Your task to perform on an android device: turn off javascript in the chrome app Image 0: 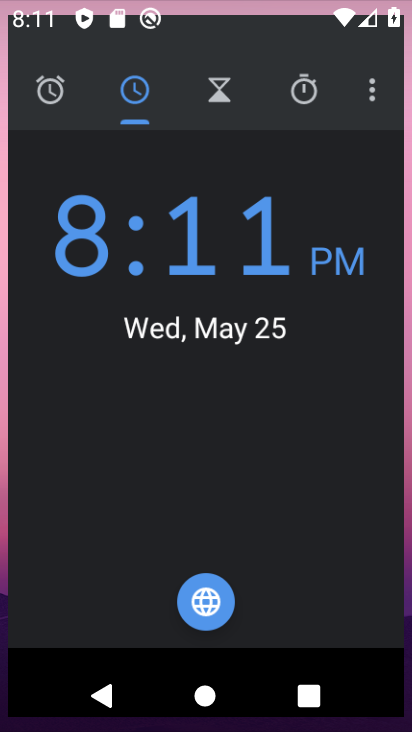
Step 0: press back button
Your task to perform on an android device: turn off javascript in the chrome app Image 1: 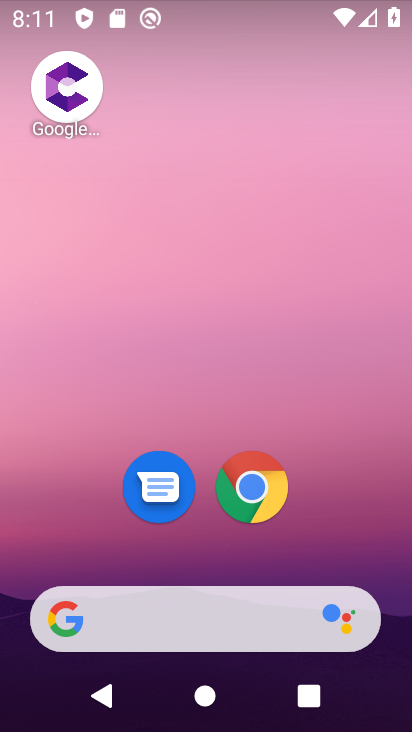
Step 1: drag from (374, 657) to (223, 85)
Your task to perform on an android device: turn off javascript in the chrome app Image 2: 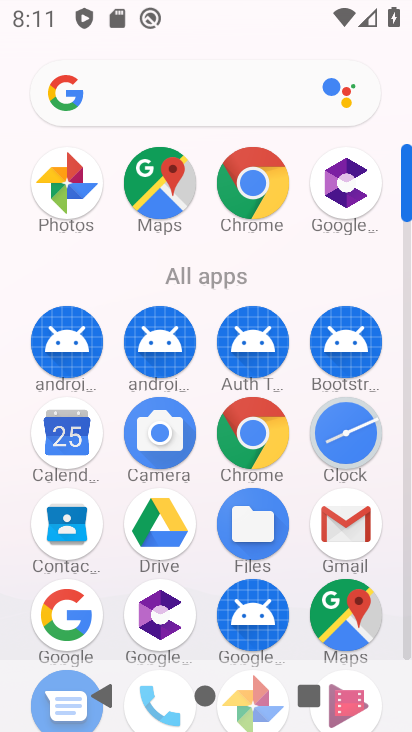
Step 2: click (250, 174)
Your task to perform on an android device: turn off javascript in the chrome app Image 3: 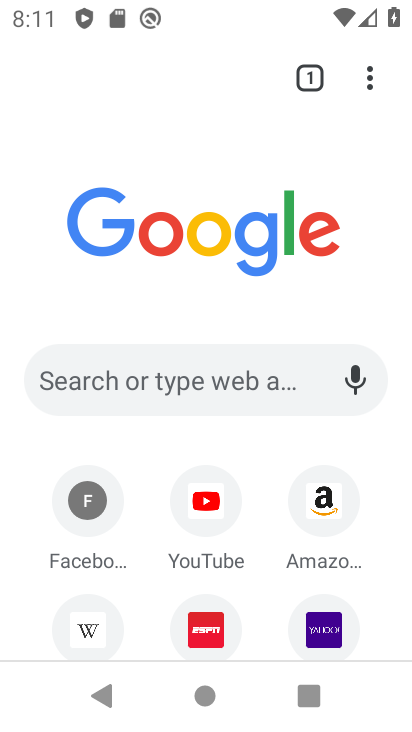
Step 3: drag from (366, 83) to (79, 552)
Your task to perform on an android device: turn off javascript in the chrome app Image 4: 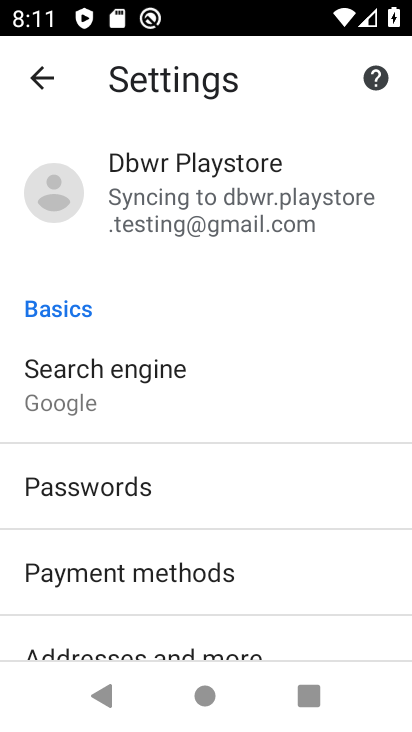
Step 4: drag from (174, 581) to (160, 173)
Your task to perform on an android device: turn off javascript in the chrome app Image 5: 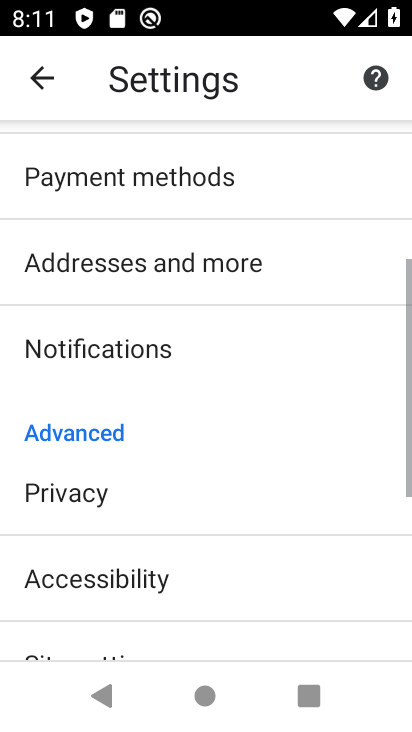
Step 5: drag from (158, 485) to (185, 205)
Your task to perform on an android device: turn off javascript in the chrome app Image 6: 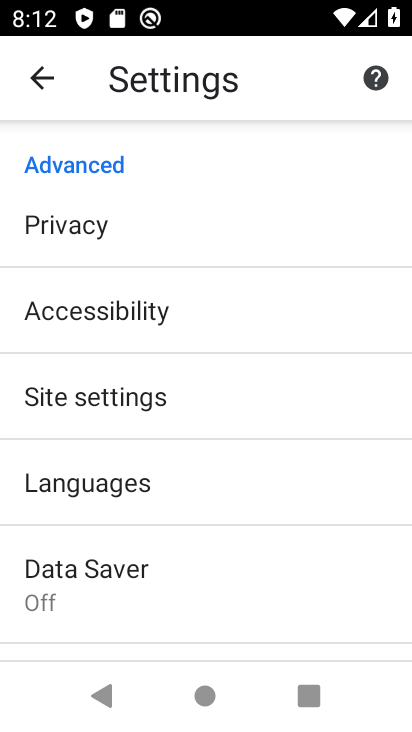
Step 6: click (95, 387)
Your task to perform on an android device: turn off javascript in the chrome app Image 7: 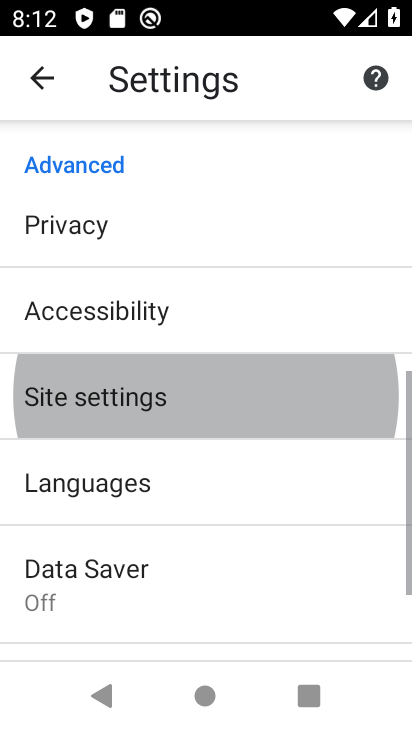
Step 7: click (101, 389)
Your task to perform on an android device: turn off javascript in the chrome app Image 8: 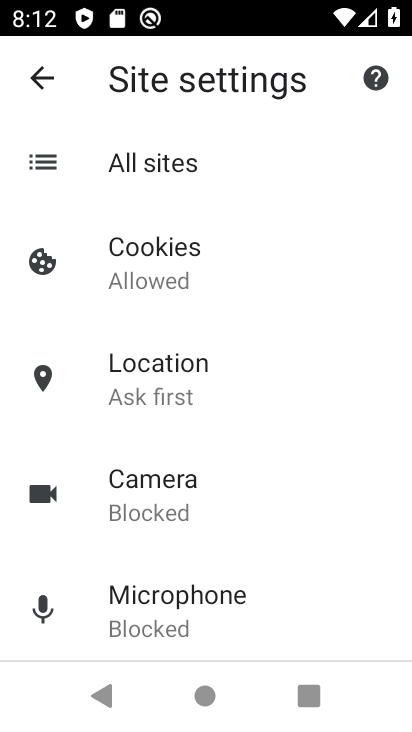
Step 8: drag from (217, 527) to (233, 192)
Your task to perform on an android device: turn off javascript in the chrome app Image 9: 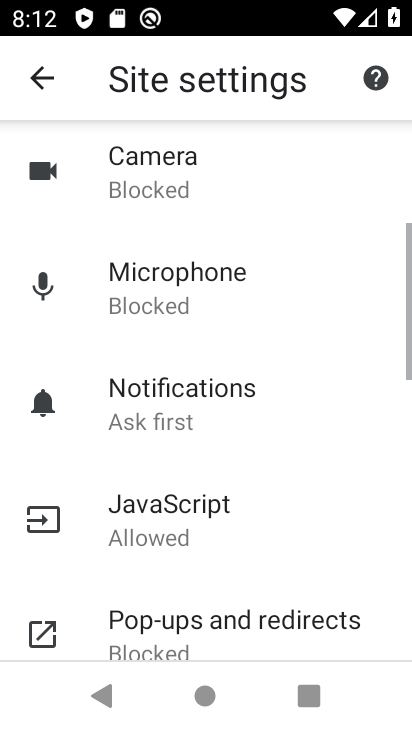
Step 9: drag from (198, 507) to (198, 103)
Your task to perform on an android device: turn off javascript in the chrome app Image 10: 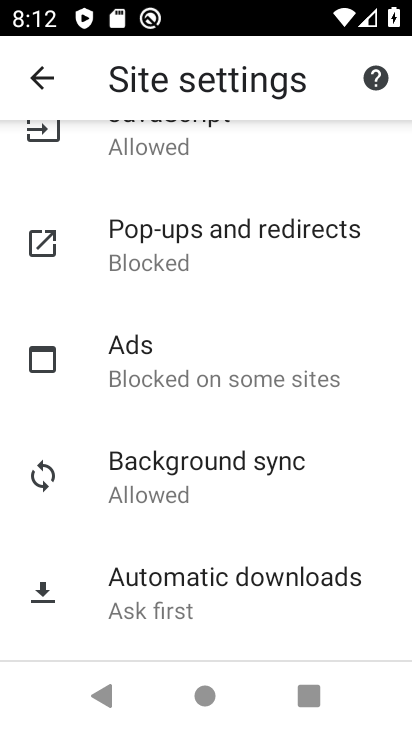
Step 10: drag from (189, 293) to (241, 519)
Your task to perform on an android device: turn off javascript in the chrome app Image 11: 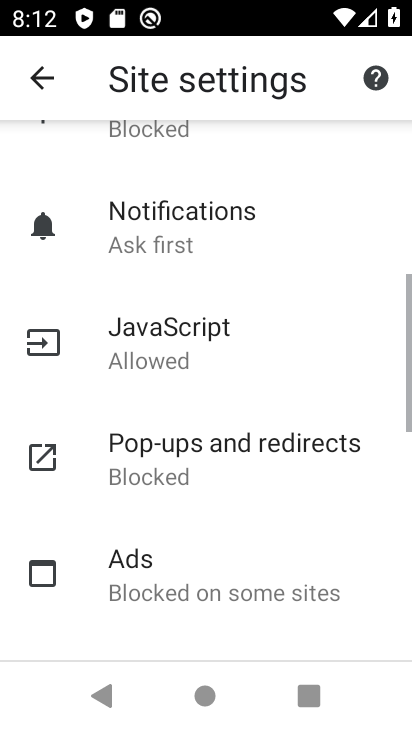
Step 11: click (148, 339)
Your task to perform on an android device: turn off javascript in the chrome app Image 12: 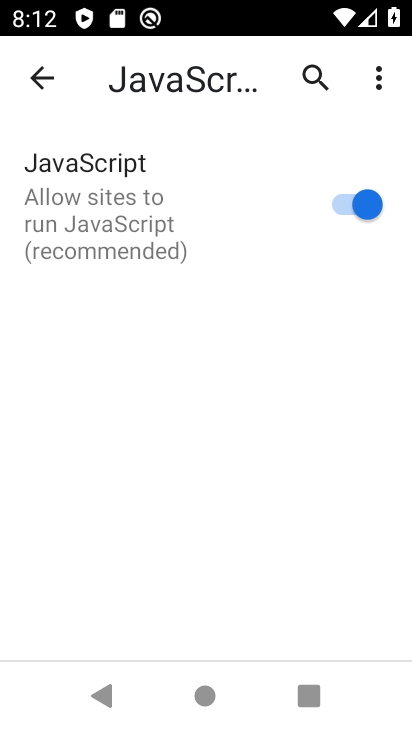
Step 12: click (371, 200)
Your task to perform on an android device: turn off javascript in the chrome app Image 13: 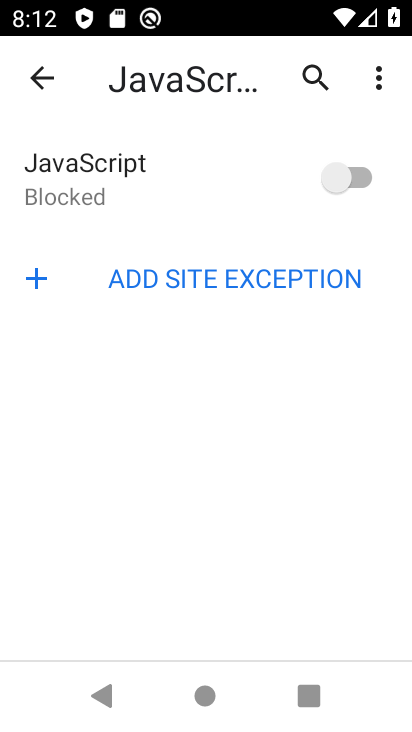
Step 13: task complete